Your task to perform on an android device: Open the calendar and show me this week's events? Image 0: 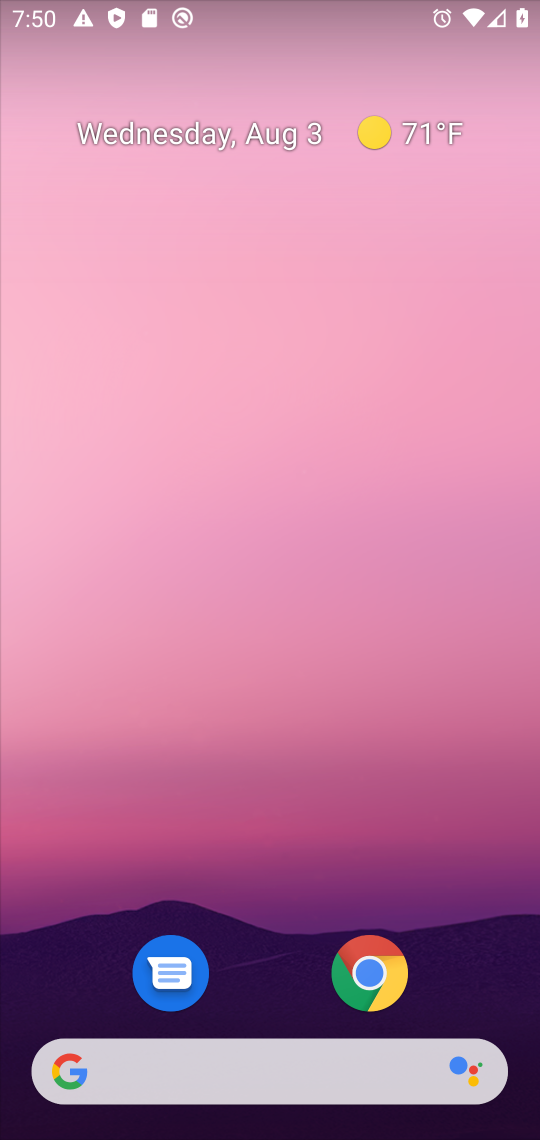
Step 0: drag from (279, 801) to (246, 191)
Your task to perform on an android device: Open the calendar and show me this week's events? Image 1: 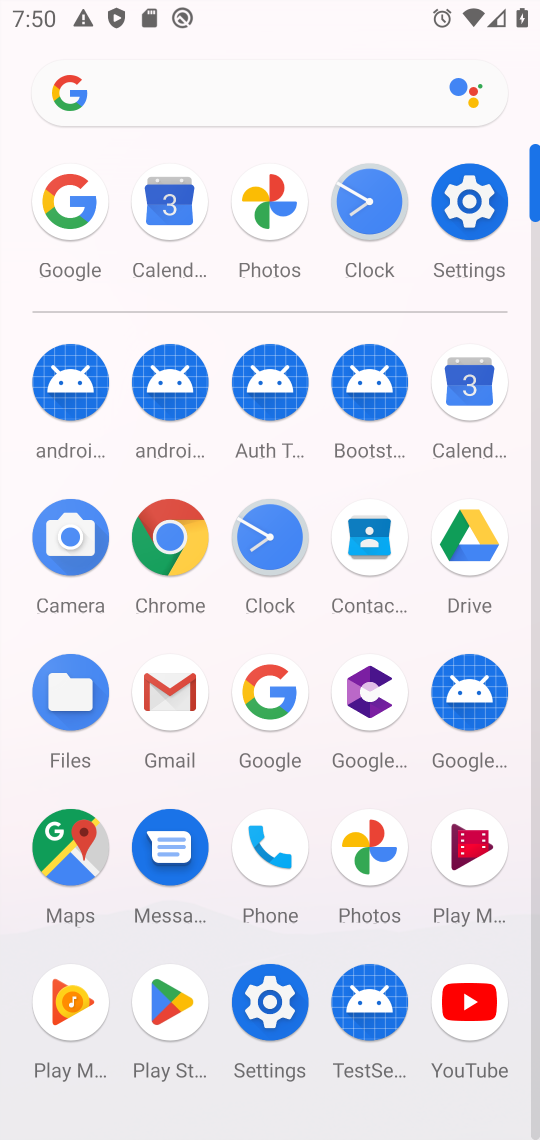
Step 1: click (462, 445)
Your task to perform on an android device: Open the calendar and show me this week's events? Image 2: 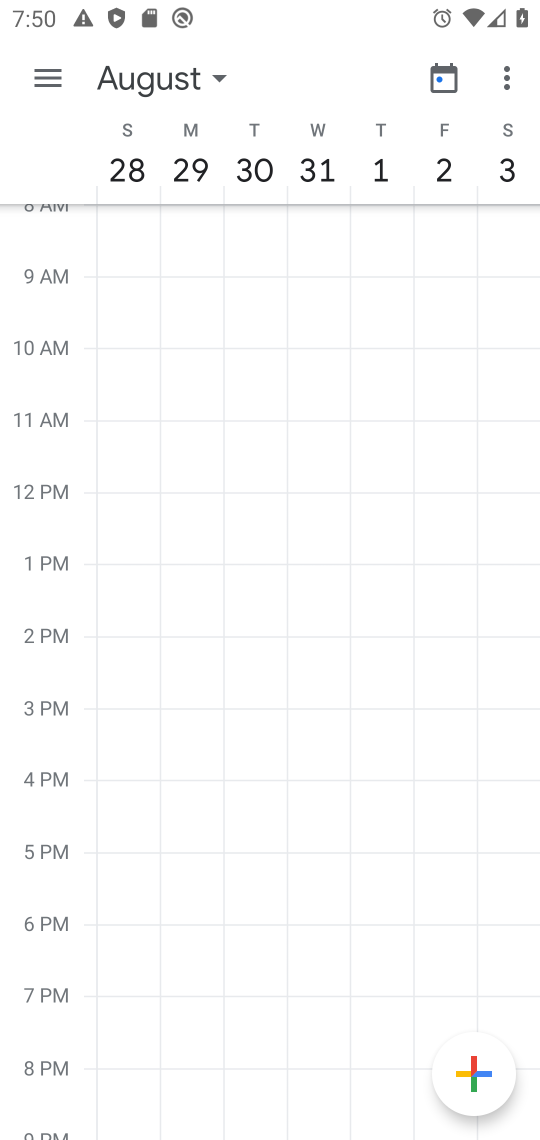
Step 2: click (462, 445)
Your task to perform on an android device: Open the calendar and show me this week's events? Image 3: 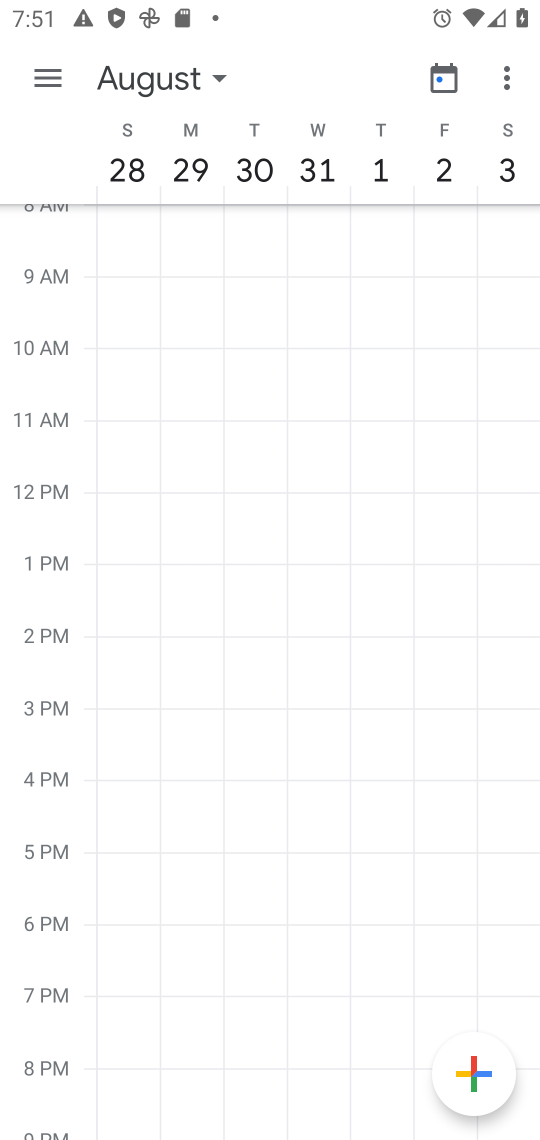
Step 3: task complete